Your task to perform on an android device: Open Google Maps and go to "Timeline" Image 0: 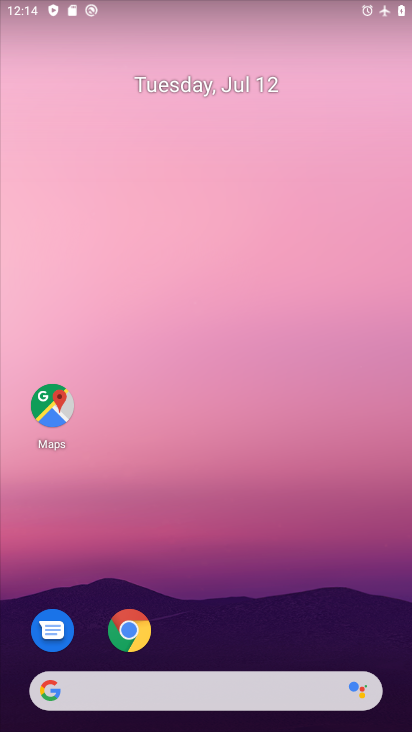
Step 0: click (52, 405)
Your task to perform on an android device: Open Google Maps and go to "Timeline" Image 1: 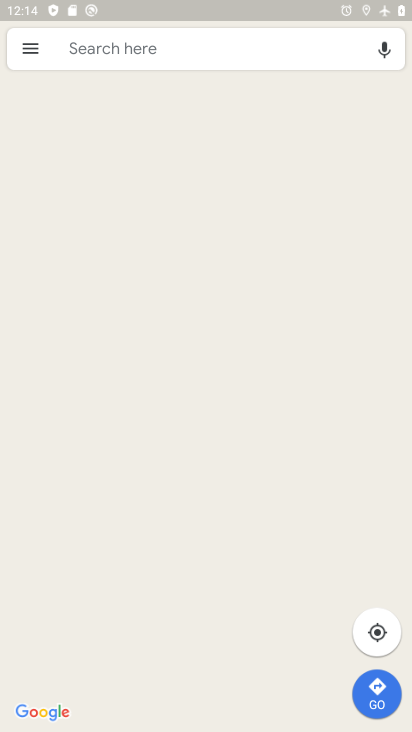
Step 1: click (25, 53)
Your task to perform on an android device: Open Google Maps and go to "Timeline" Image 2: 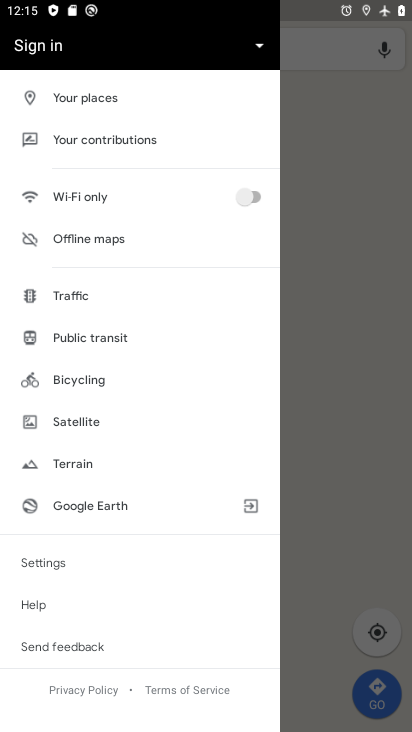
Step 2: drag from (177, 242) to (158, 547)
Your task to perform on an android device: Open Google Maps and go to "Timeline" Image 3: 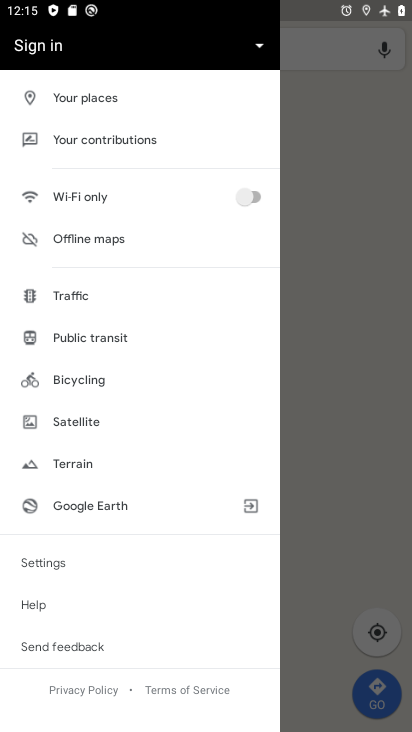
Step 3: drag from (145, 674) to (156, 352)
Your task to perform on an android device: Open Google Maps and go to "Timeline" Image 4: 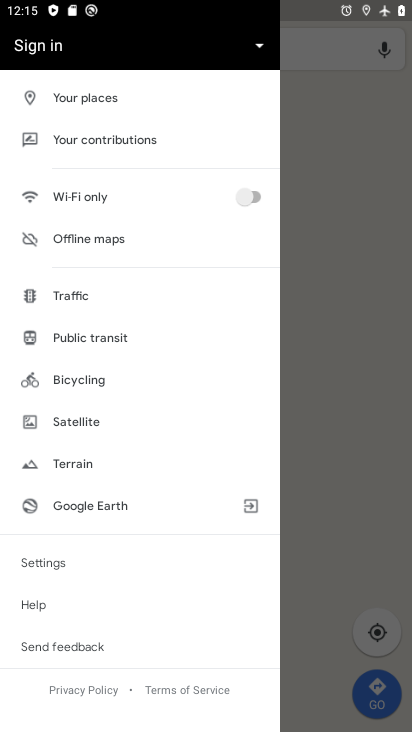
Step 4: drag from (156, 352) to (131, 636)
Your task to perform on an android device: Open Google Maps and go to "Timeline" Image 5: 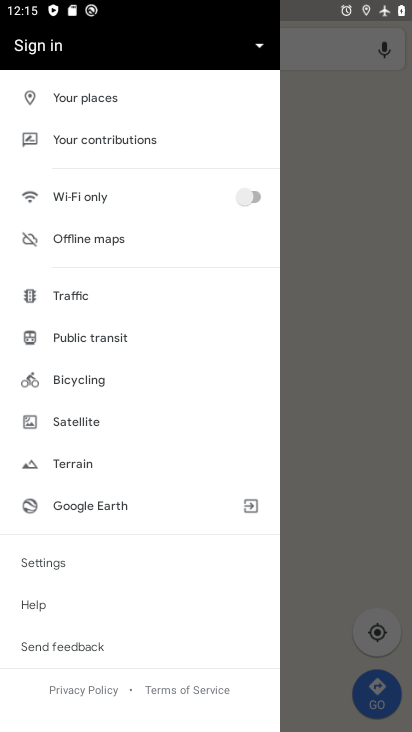
Step 5: click (353, 323)
Your task to perform on an android device: Open Google Maps and go to "Timeline" Image 6: 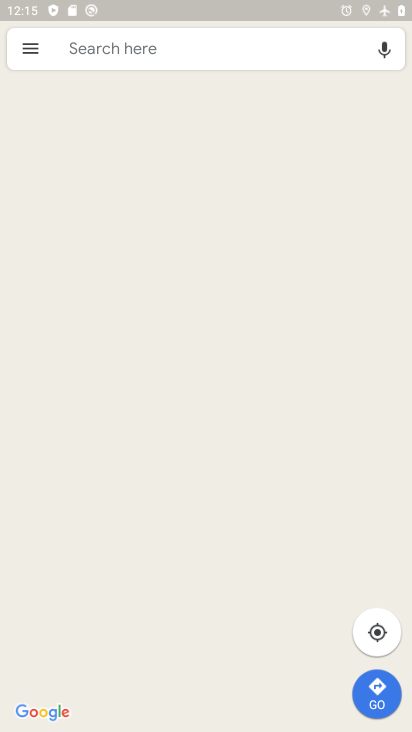
Step 6: task complete